Your task to perform on an android device: turn on javascript in the chrome app Image 0: 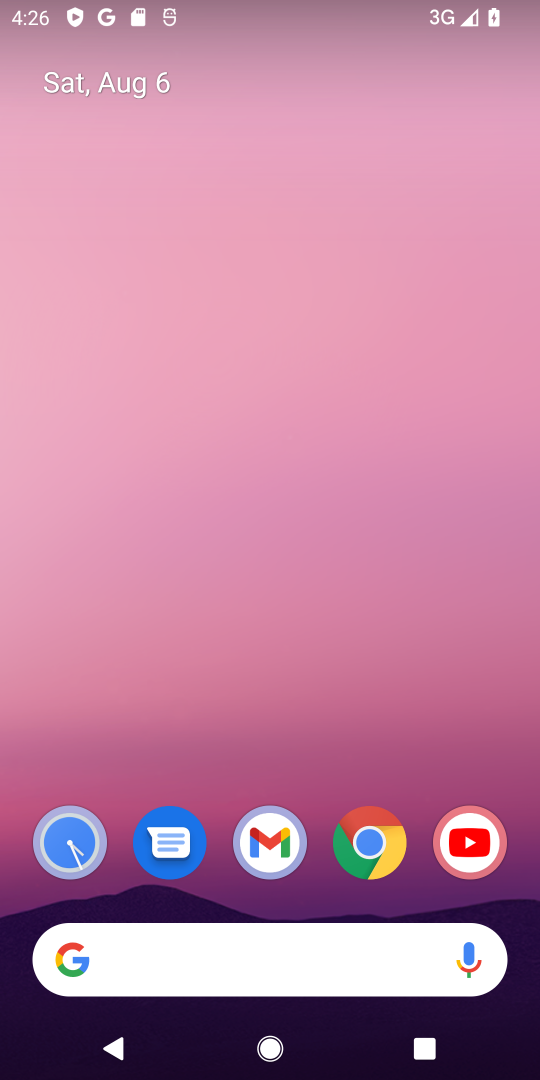
Step 0: click (378, 838)
Your task to perform on an android device: turn on javascript in the chrome app Image 1: 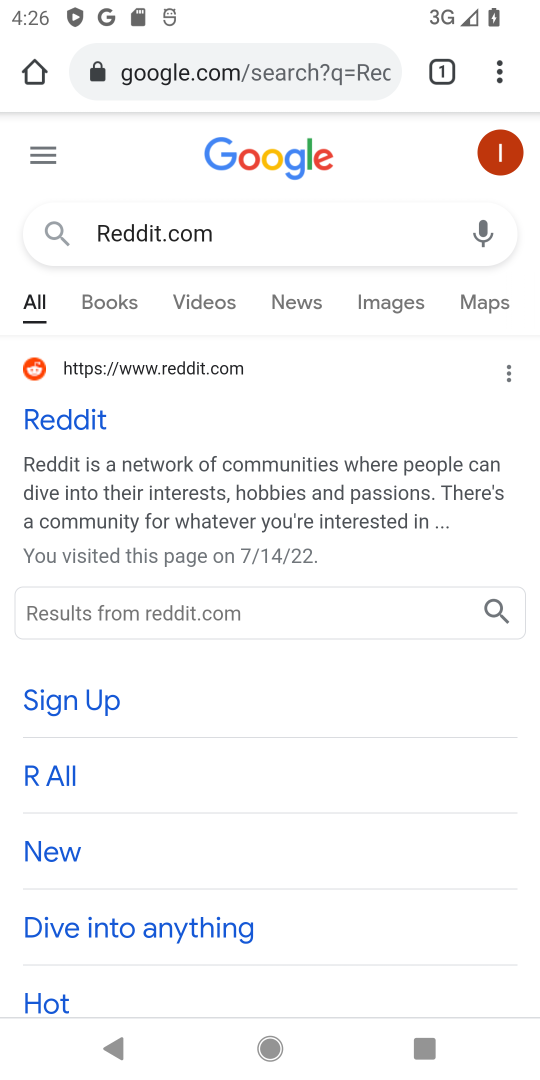
Step 1: click (493, 68)
Your task to perform on an android device: turn on javascript in the chrome app Image 2: 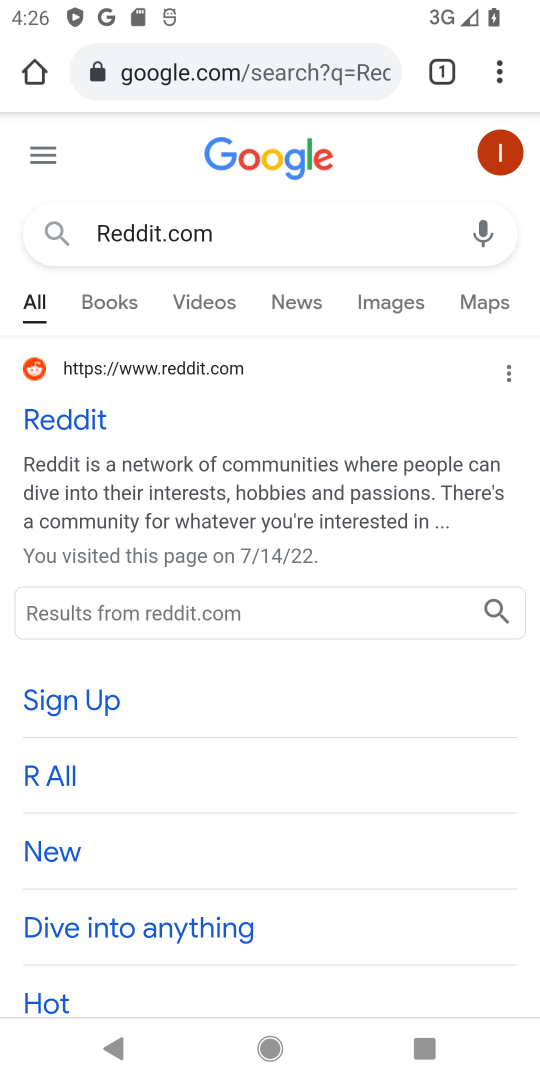
Step 2: click (502, 64)
Your task to perform on an android device: turn on javascript in the chrome app Image 3: 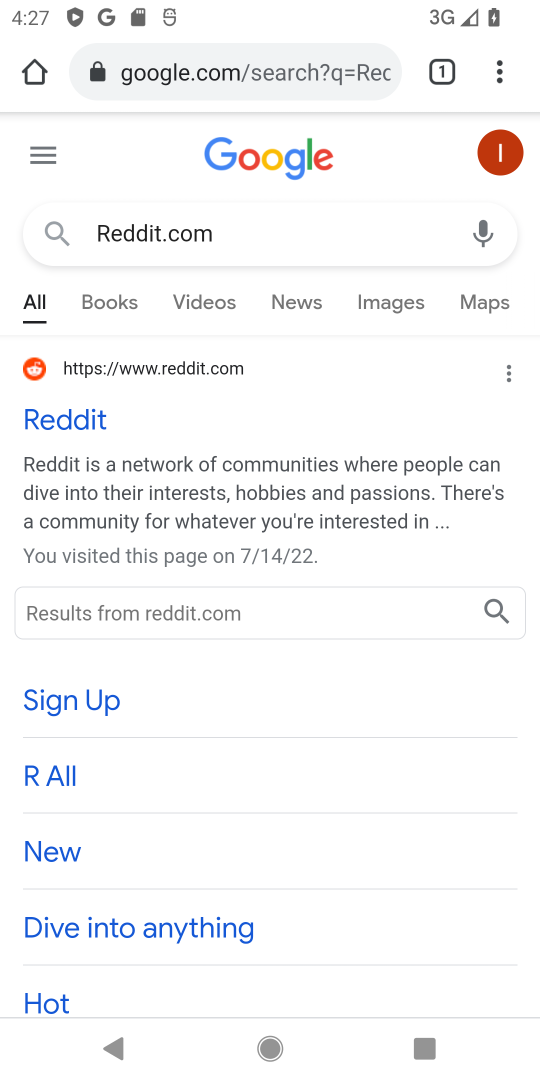
Step 3: click (502, 63)
Your task to perform on an android device: turn on javascript in the chrome app Image 4: 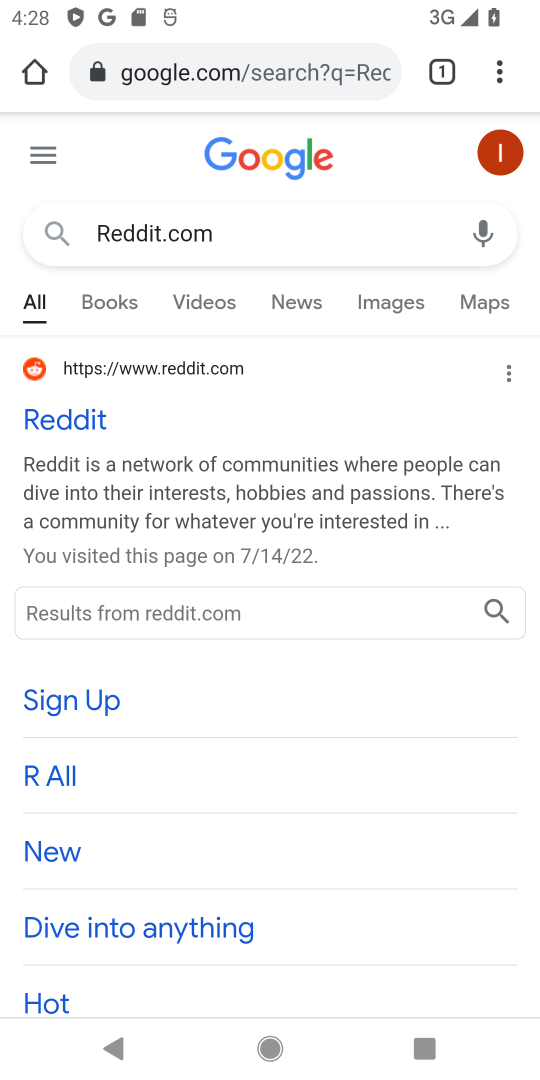
Step 4: click (495, 66)
Your task to perform on an android device: turn on javascript in the chrome app Image 5: 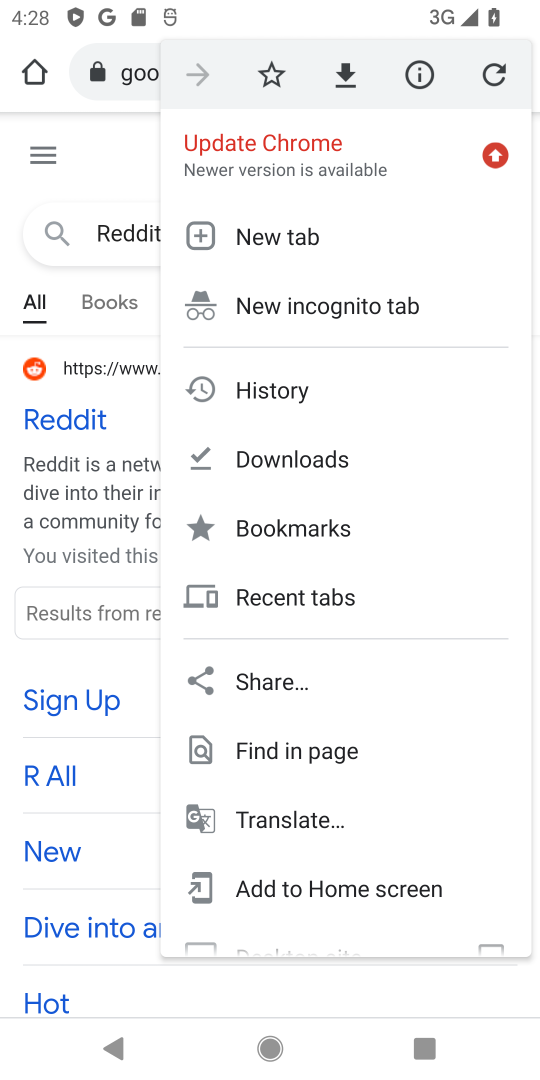
Step 5: drag from (442, 872) to (394, 388)
Your task to perform on an android device: turn on javascript in the chrome app Image 6: 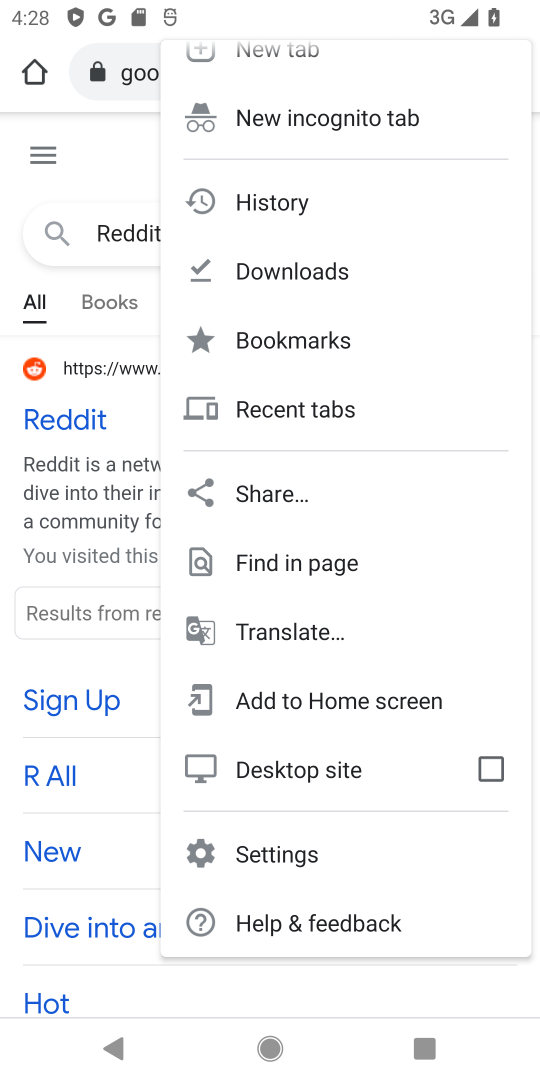
Step 6: click (288, 848)
Your task to perform on an android device: turn on javascript in the chrome app Image 7: 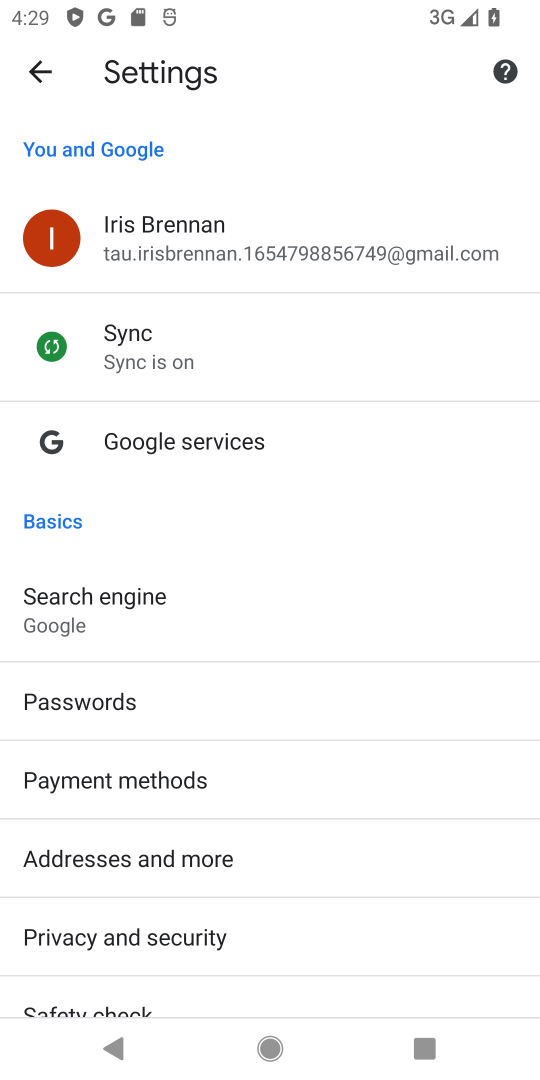
Step 7: task complete